Your task to perform on an android device: turn pop-ups on in chrome Image 0: 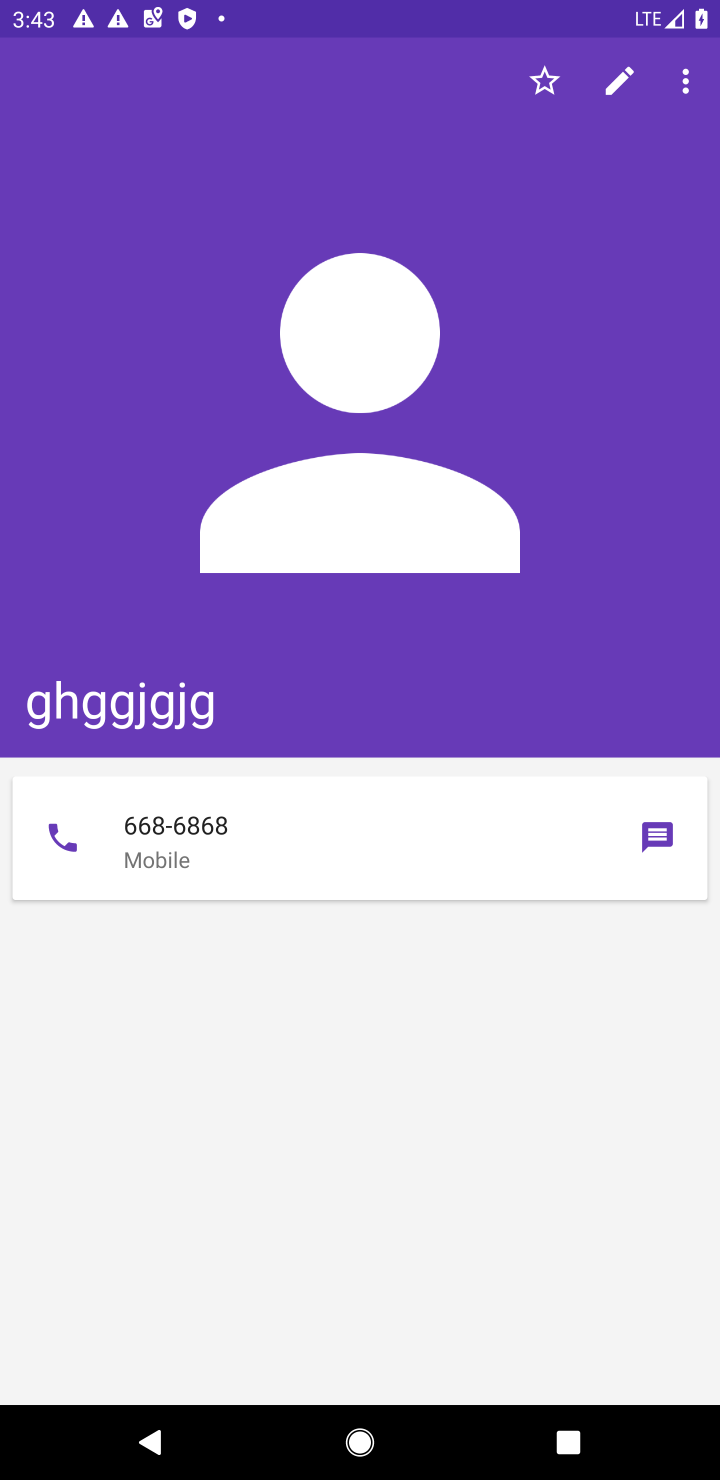
Step 0: press home button
Your task to perform on an android device: turn pop-ups on in chrome Image 1: 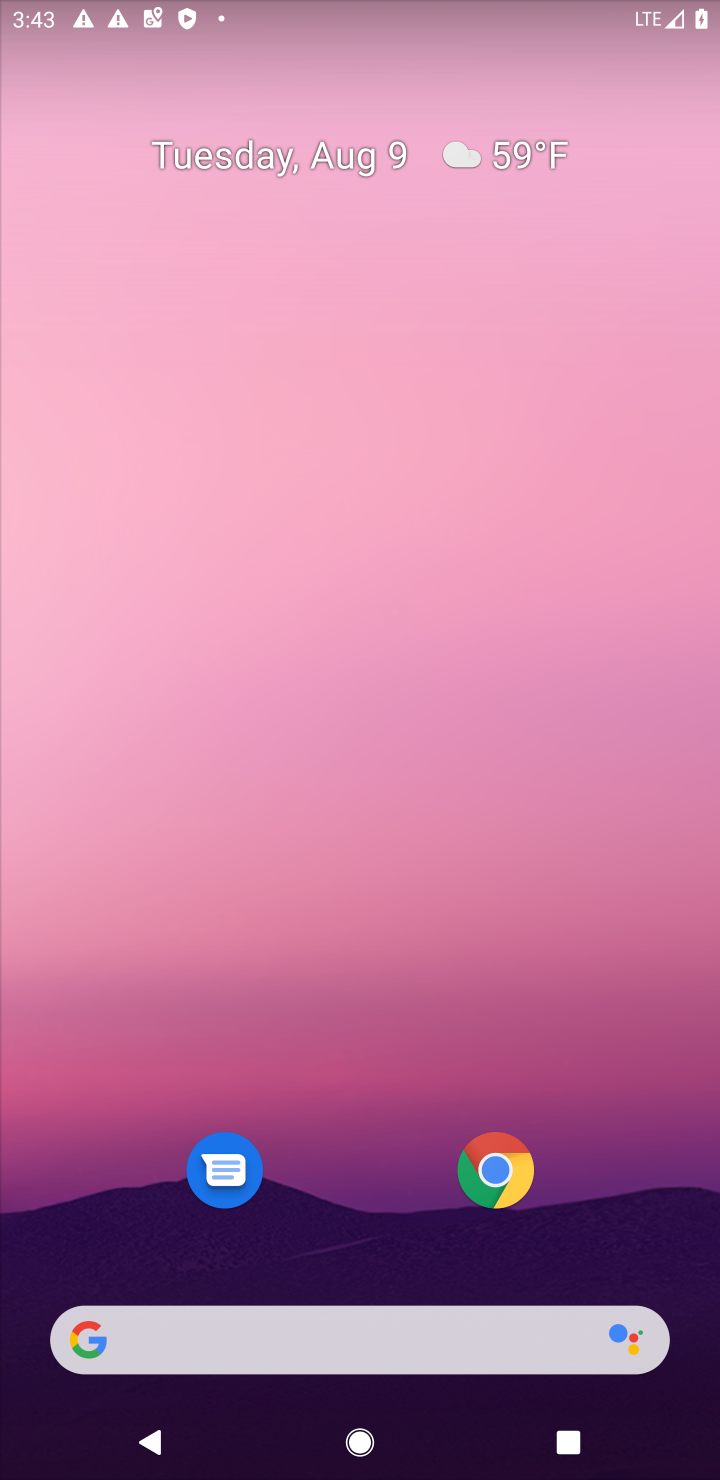
Step 1: click (496, 1169)
Your task to perform on an android device: turn pop-ups on in chrome Image 2: 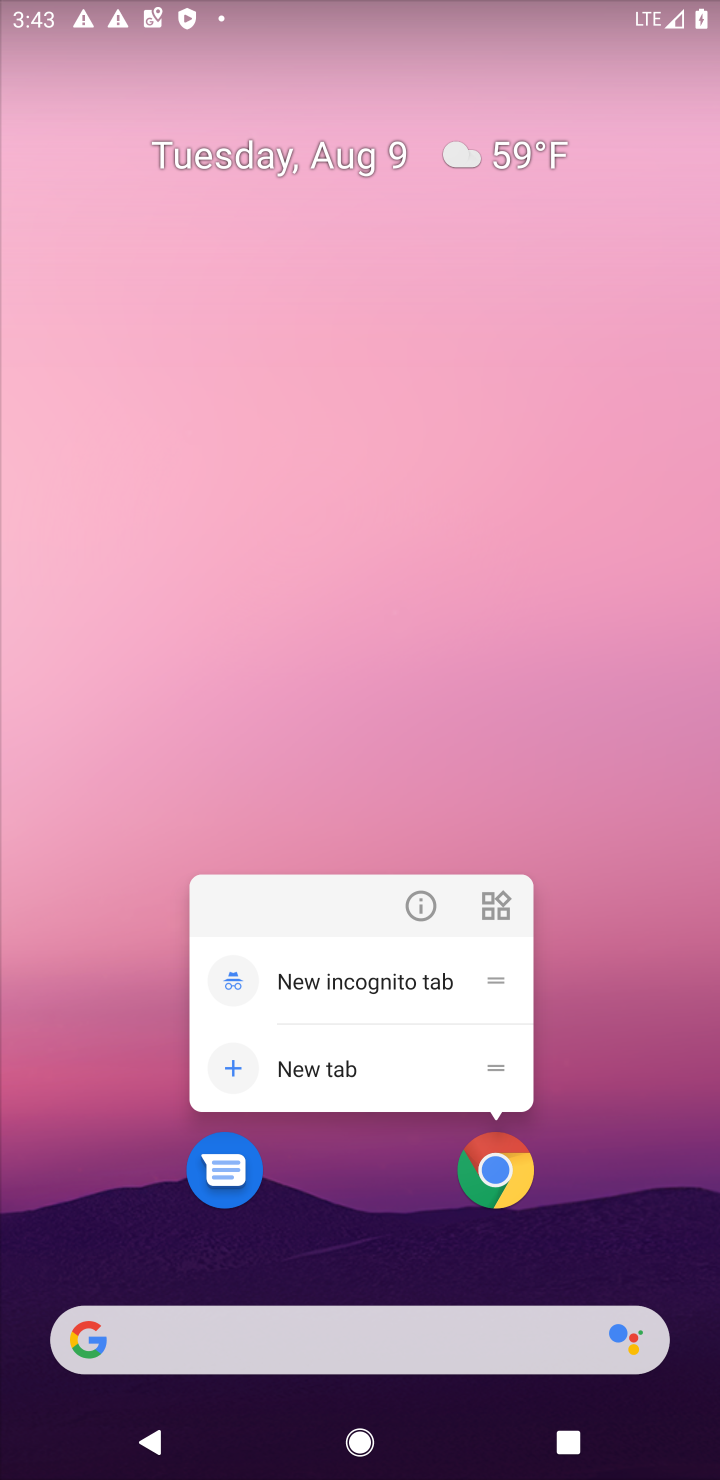
Step 2: click (502, 1183)
Your task to perform on an android device: turn pop-ups on in chrome Image 3: 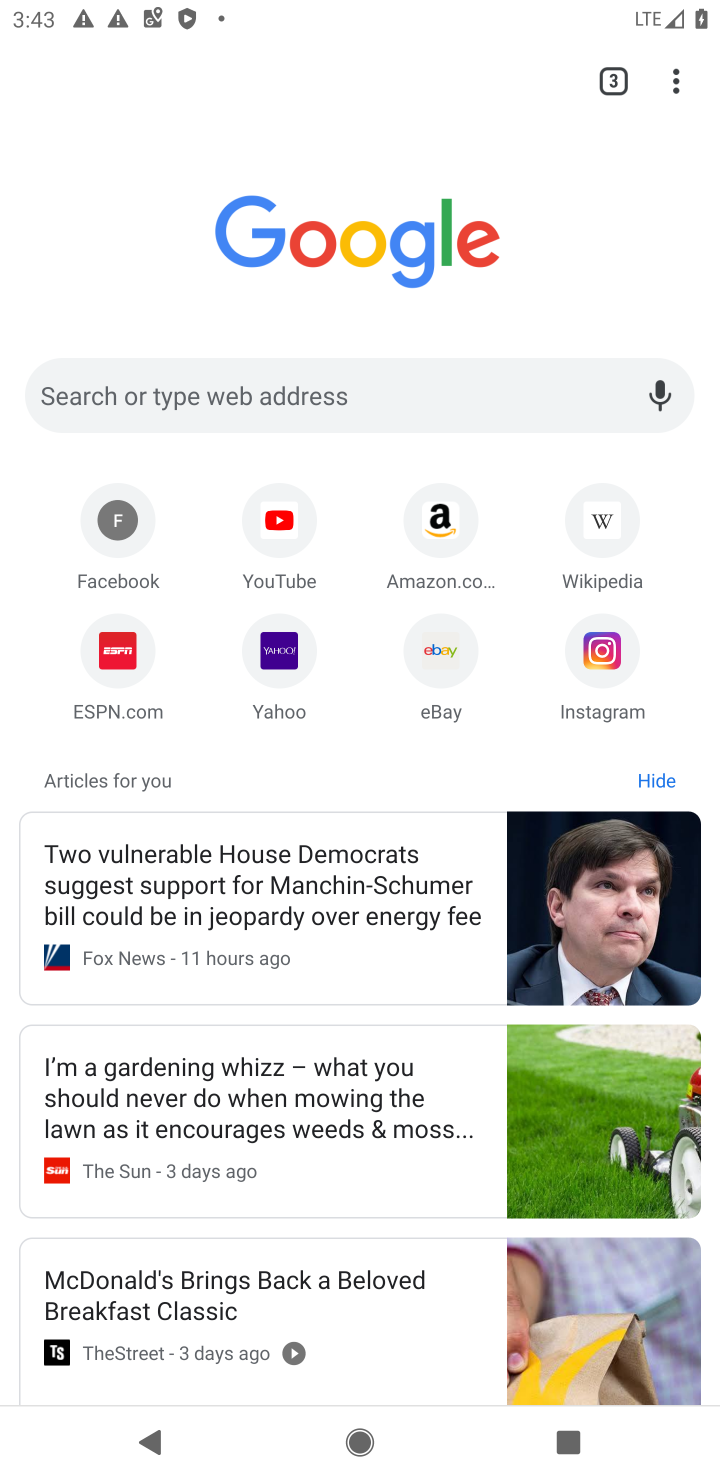
Step 3: drag from (668, 73) to (371, 684)
Your task to perform on an android device: turn pop-ups on in chrome Image 4: 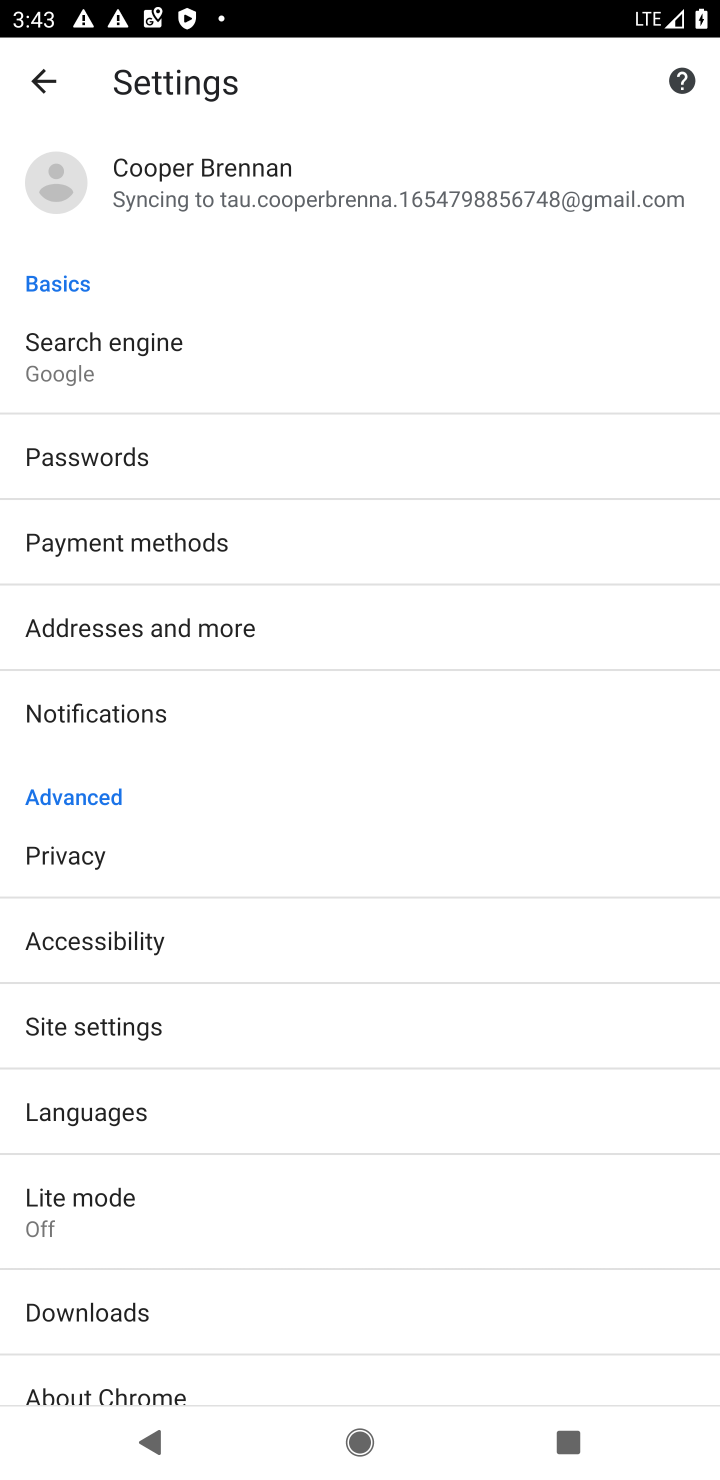
Step 4: click (118, 1022)
Your task to perform on an android device: turn pop-ups on in chrome Image 5: 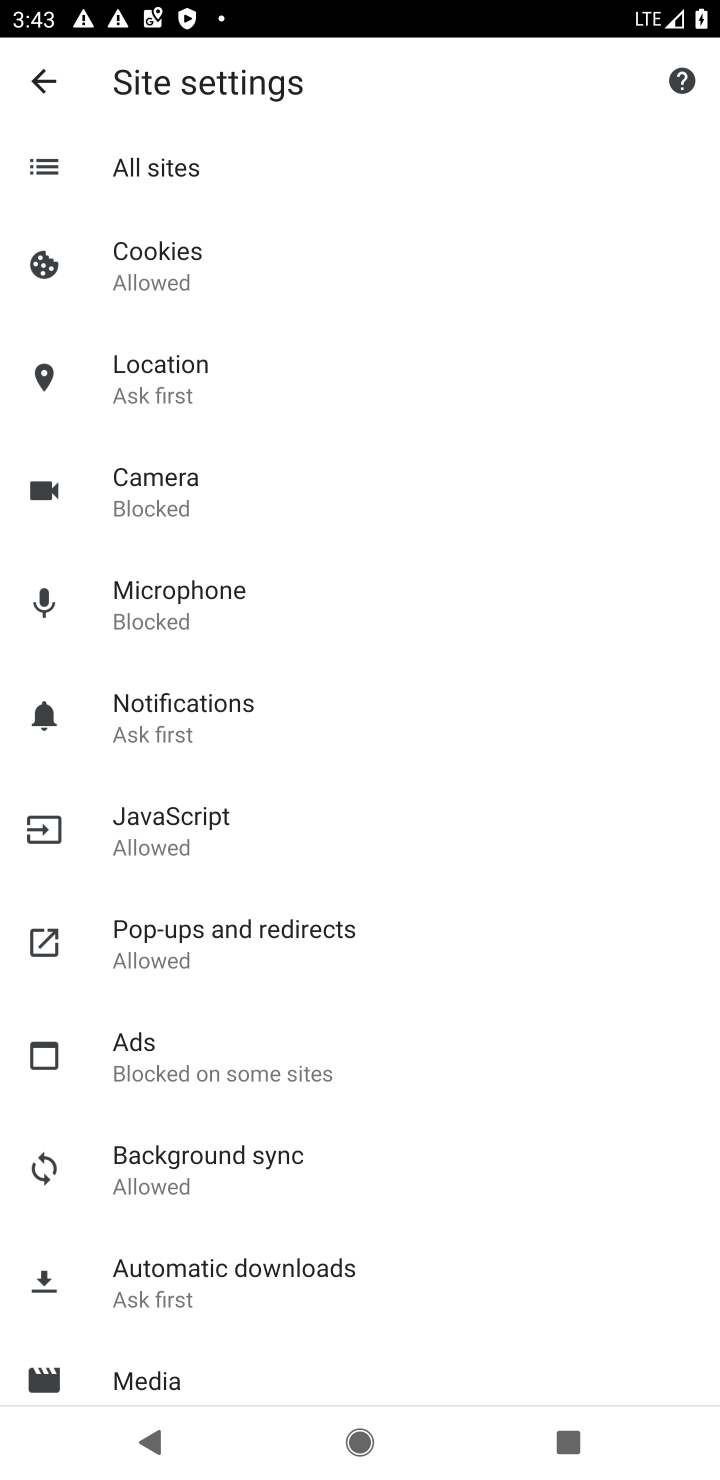
Step 5: click (158, 958)
Your task to perform on an android device: turn pop-ups on in chrome Image 6: 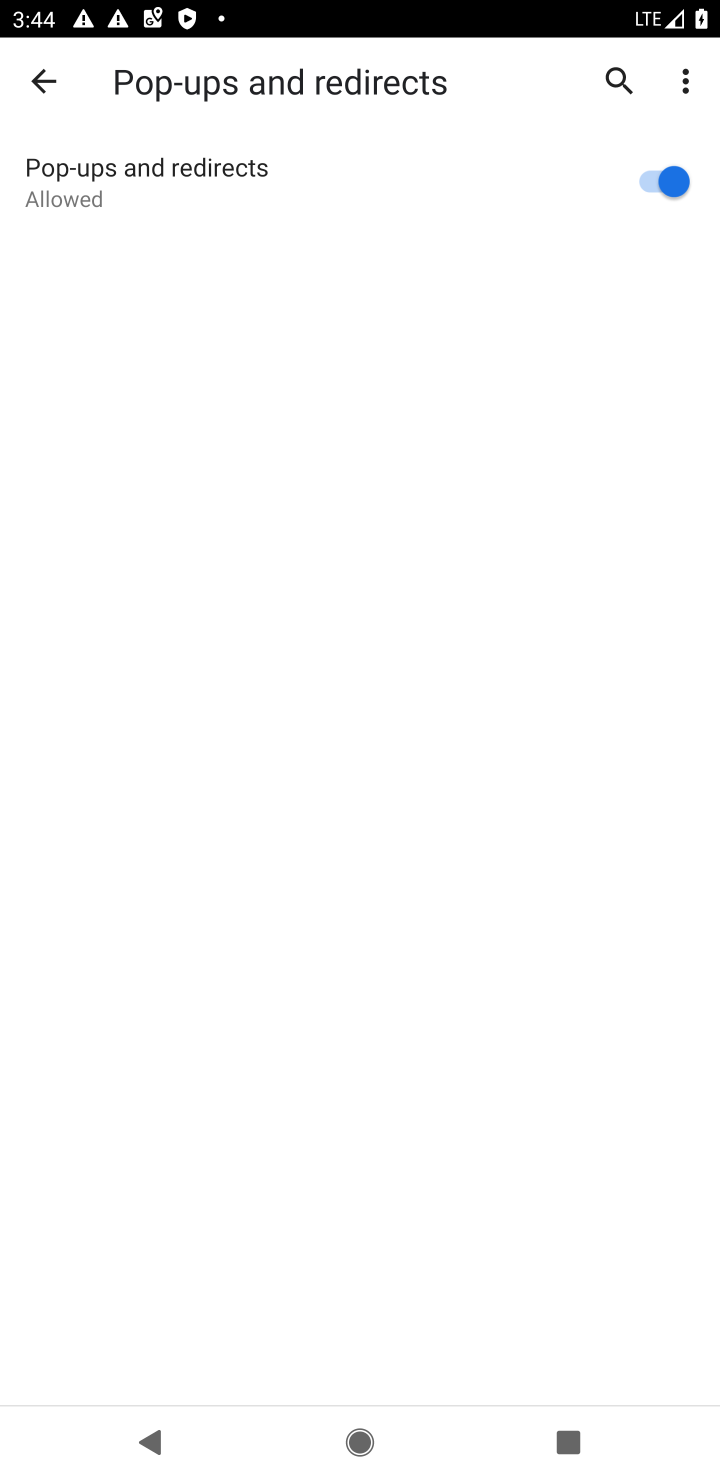
Step 6: task complete